Your task to perform on an android device: Show me popular games on the Play Store Image 0: 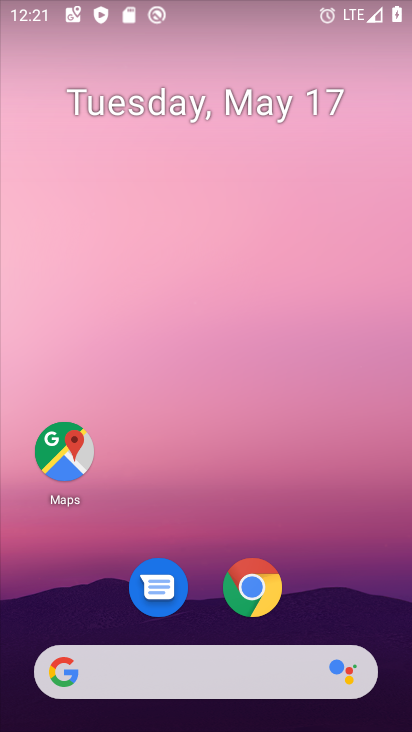
Step 0: drag from (385, 629) to (260, 56)
Your task to perform on an android device: Show me popular games on the Play Store Image 1: 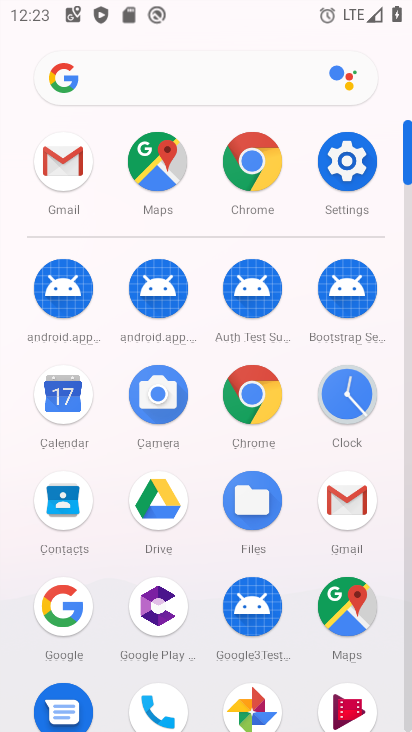
Step 1: drag from (234, 679) to (197, 280)
Your task to perform on an android device: Show me popular games on the Play Store Image 2: 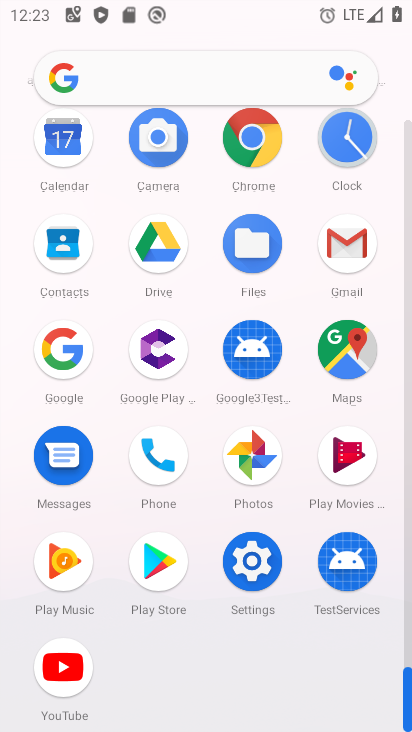
Step 2: click (155, 560)
Your task to perform on an android device: Show me popular games on the Play Store Image 3: 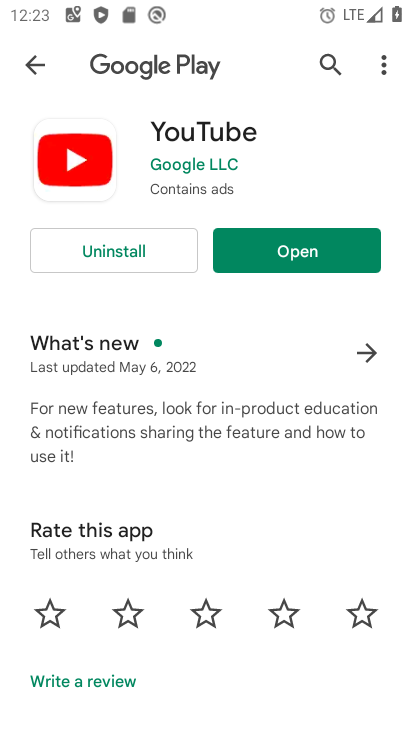
Step 3: task complete